Your task to perform on an android device: clear all cookies in the chrome app Image 0: 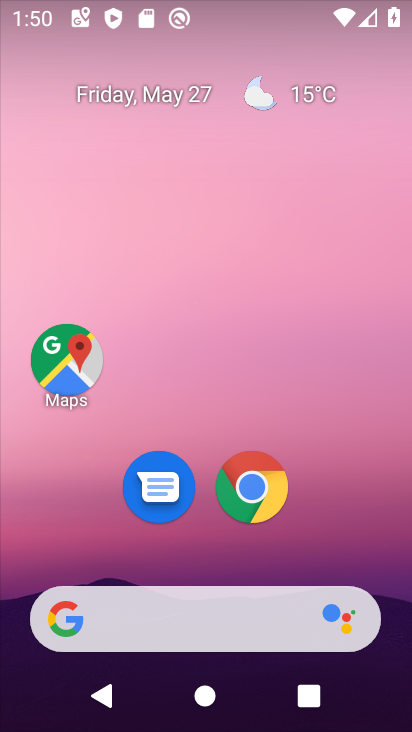
Step 0: click (260, 477)
Your task to perform on an android device: clear all cookies in the chrome app Image 1: 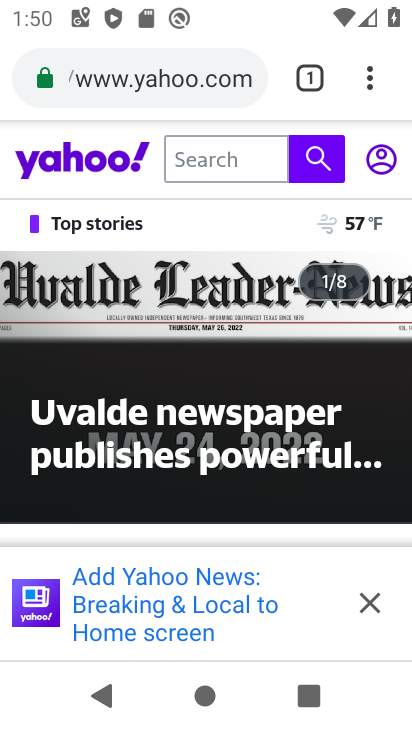
Step 1: drag from (365, 85) to (162, 395)
Your task to perform on an android device: clear all cookies in the chrome app Image 2: 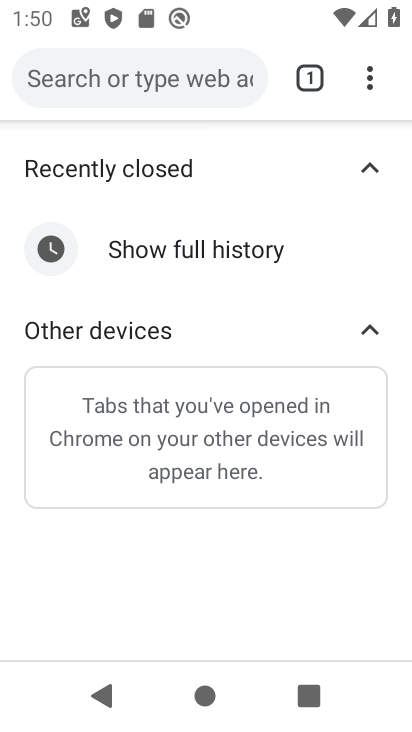
Step 2: drag from (369, 76) to (101, 425)
Your task to perform on an android device: clear all cookies in the chrome app Image 3: 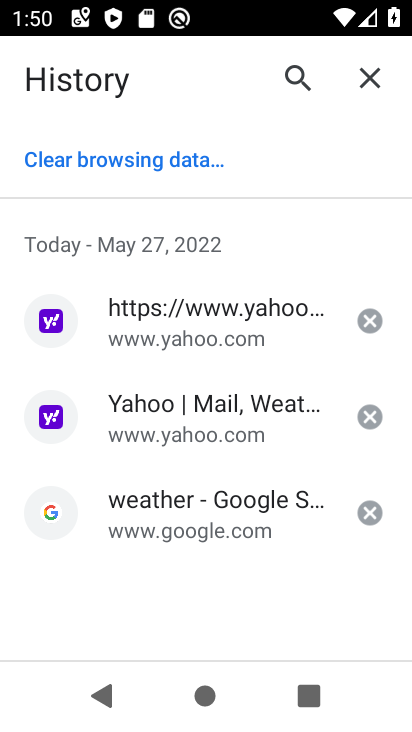
Step 3: click (141, 162)
Your task to perform on an android device: clear all cookies in the chrome app Image 4: 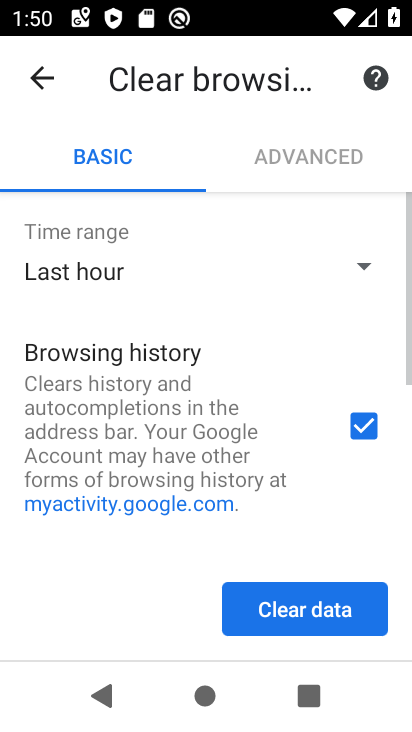
Step 4: click (152, 257)
Your task to perform on an android device: clear all cookies in the chrome app Image 5: 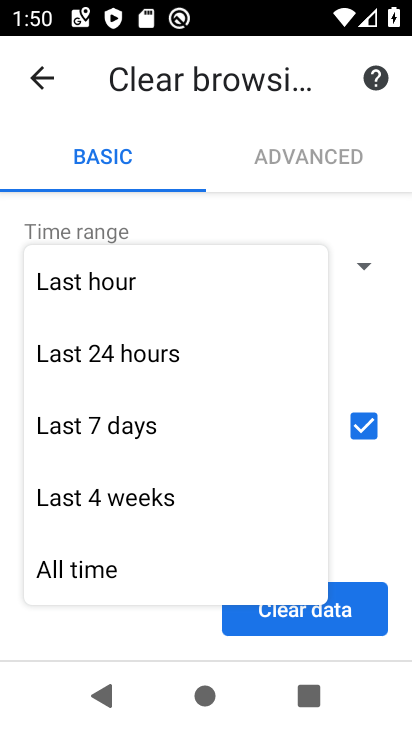
Step 5: click (178, 556)
Your task to perform on an android device: clear all cookies in the chrome app Image 6: 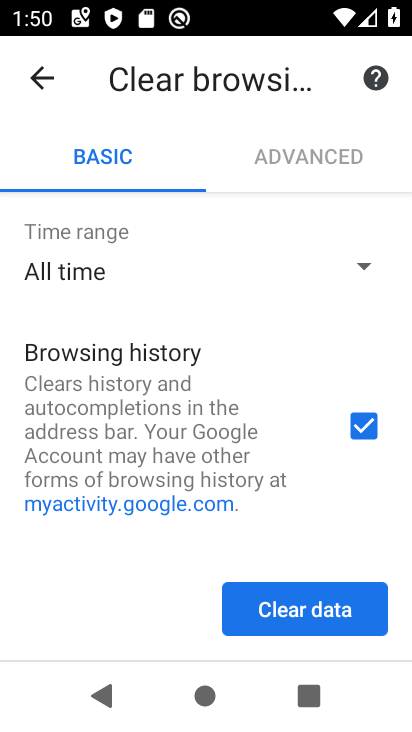
Step 6: click (316, 612)
Your task to perform on an android device: clear all cookies in the chrome app Image 7: 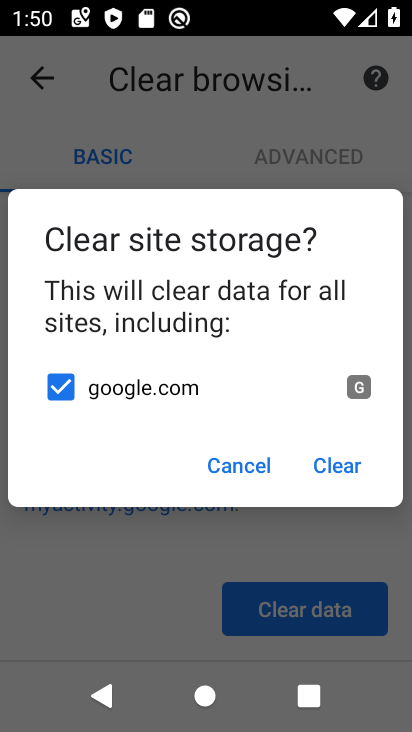
Step 7: click (342, 476)
Your task to perform on an android device: clear all cookies in the chrome app Image 8: 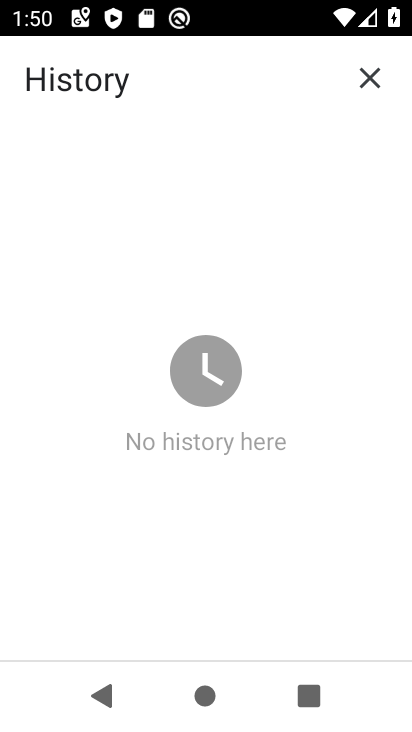
Step 8: task complete